Your task to perform on an android device: Open Google Chrome and open the bookmarks view Image 0: 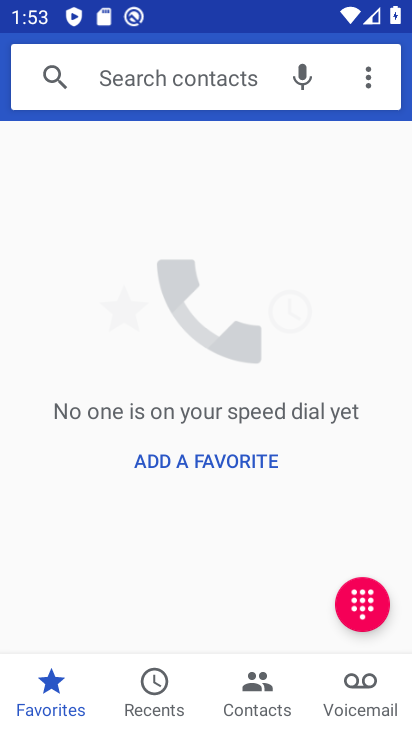
Step 0: press home button
Your task to perform on an android device: Open Google Chrome and open the bookmarks view Image 1: 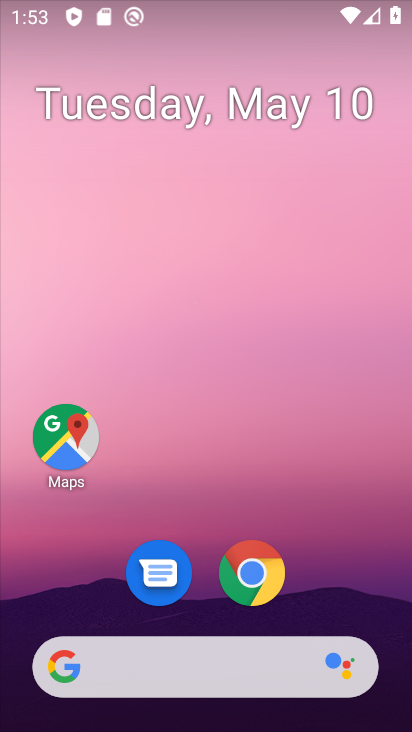
Step 1: click (242, 568)
Your task to perform on an android device: Open Google Chrome and open the bookmarks view Image 2: 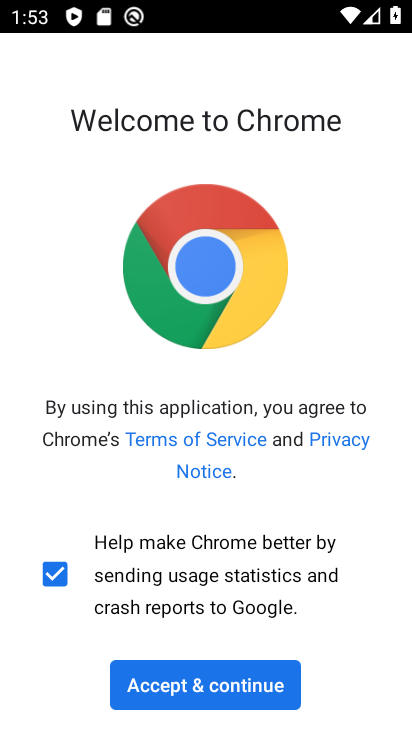
Step 2: click (205, 663)
Your task to perform on an android device: Open Google Chrome and open the bookmarks view Image 3: 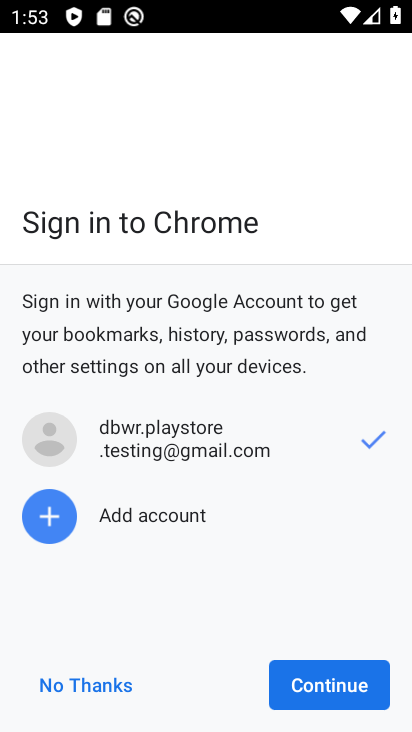
Step 3: click (299, 678)
Your task to perform on an android device: Open Google Chrome and open the bookmarks view Image 4: 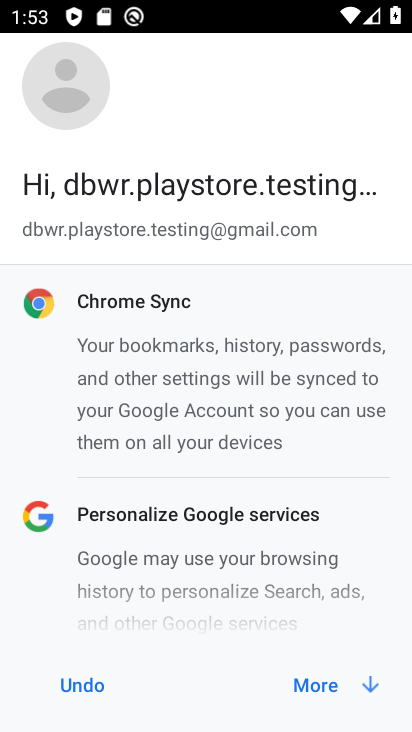
Step 4: click (299, 680)
Your task to perform on an android device: Open Google Chrome and open the bookmarks view Image 5: 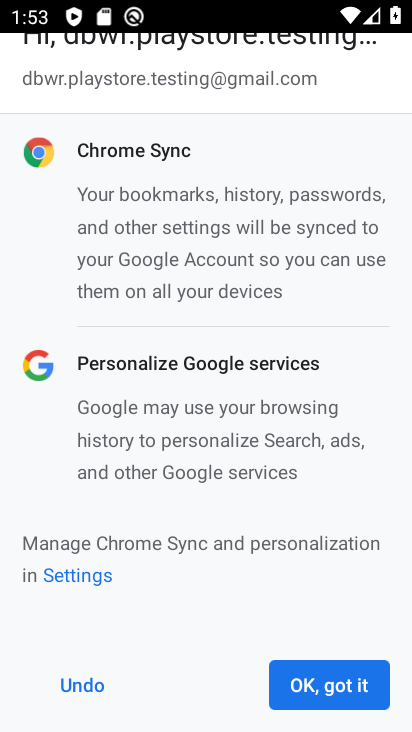
Step 5: click (299, 681)
Your task to perform on an android device: Open Google Chrome and open the bookmarks view Image 6: 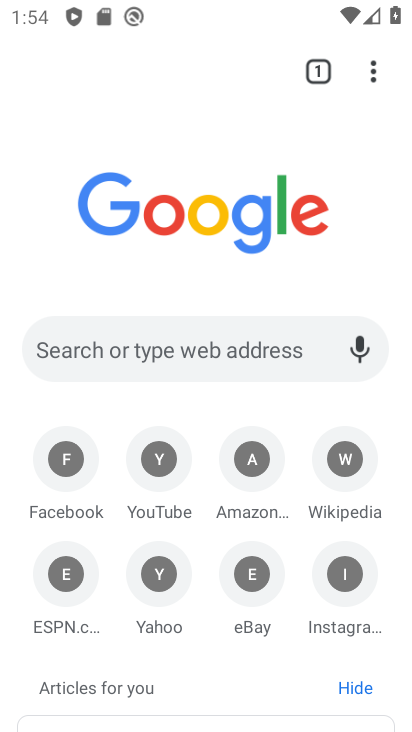
Step 6: click (376, 79)
Your task to perform on an android device: Open Google Chrome and open the bookmarks view Image 7: 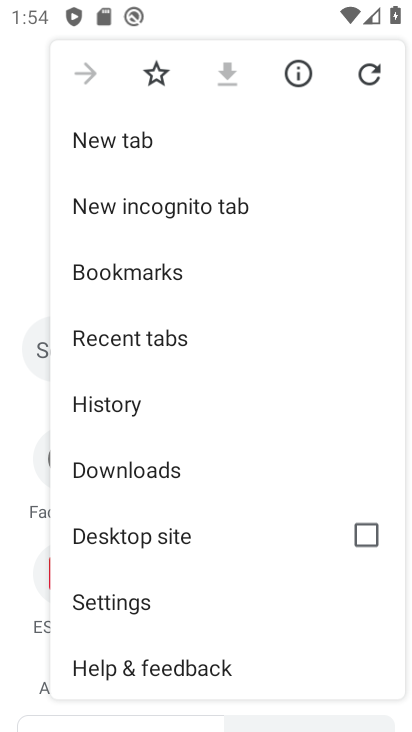
Step 7: click (131, 276)
Your task to perform on an android device: Open Google Chrome and open the bookmarks view Image 8: 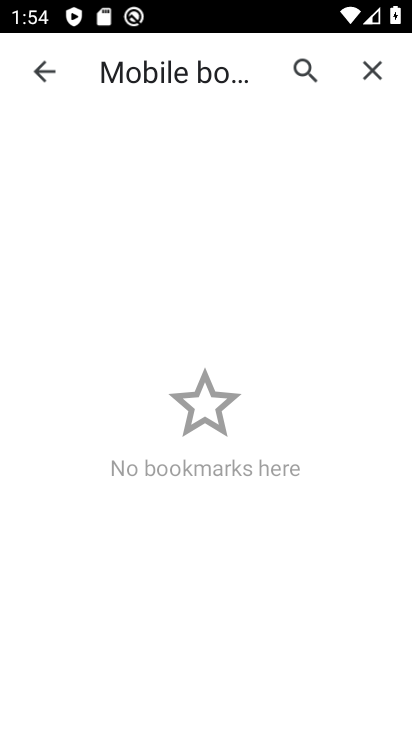
Step 8: task complete